Your task to perform on an android device: Go to Yahoo.com Image 0: 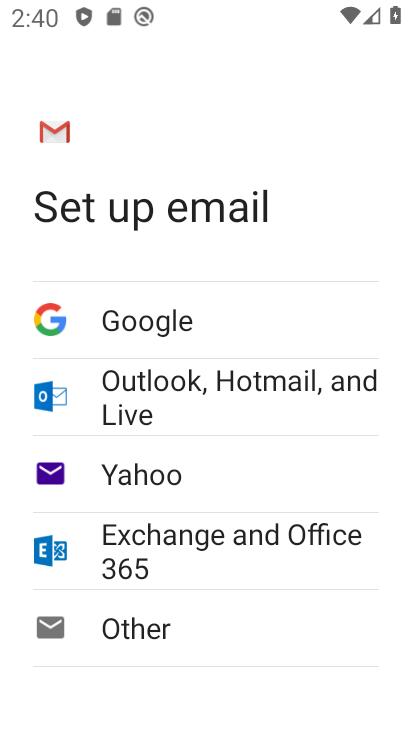
Step 0: press home button
Your task to perform on an android device: Go to Yahoo.com Image 1: 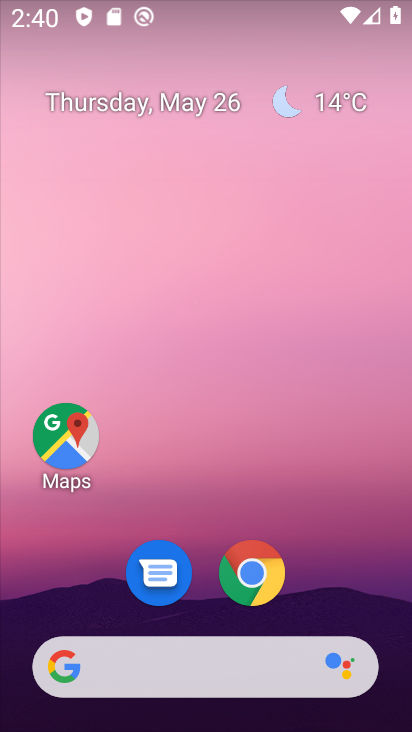
Step 1: drag from (325, 552) to (211, 77)
Your task to perform on an android device: Go to Yahoo.com Image 2: 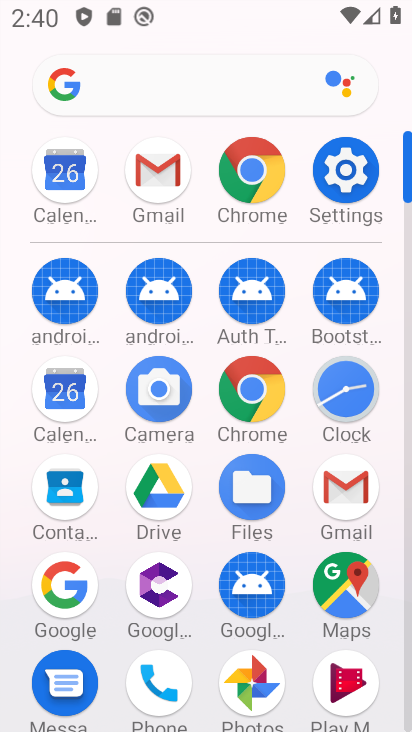
Step 2: click (249, 167)
Your task to perform on an android device: Go to Yahoo.com Image 3: 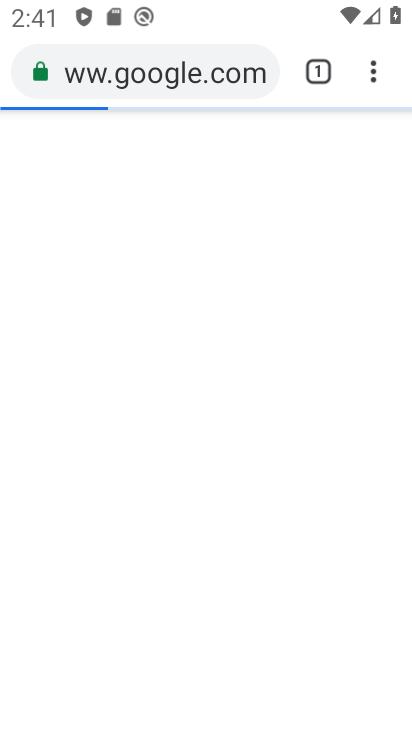
Step 3: click (193, 64)
Your task to perform on an android device: Go to Yahoo.com Image 4: 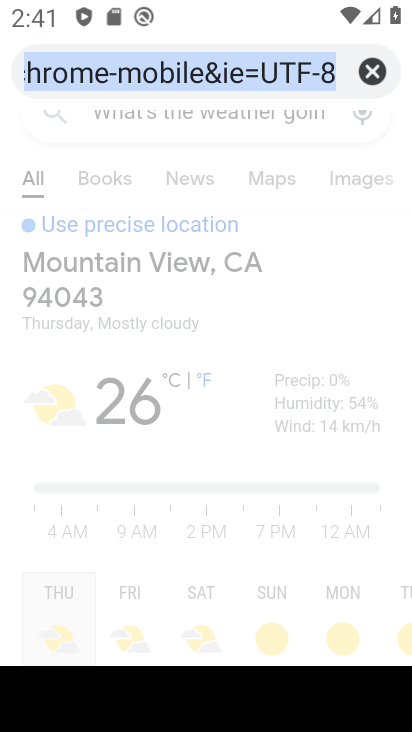
Step 4: click (365, 71)
Your task to perform on an android device: Go to Yahoo.com Image 5: 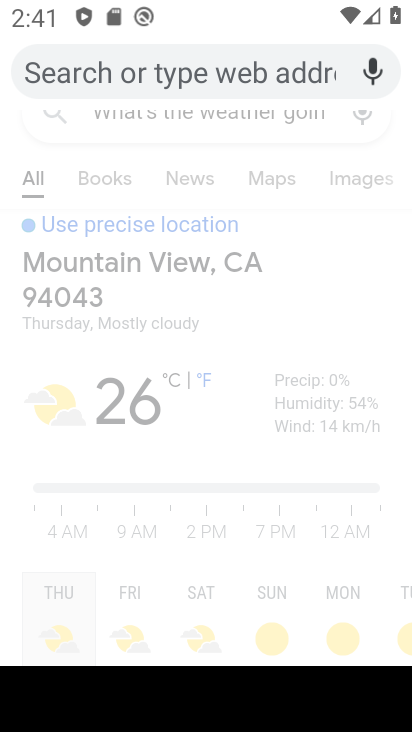
Step 5: type "Yahoo.com"
Your task to perform on an android device: Go to Yahoo.com Image 6: 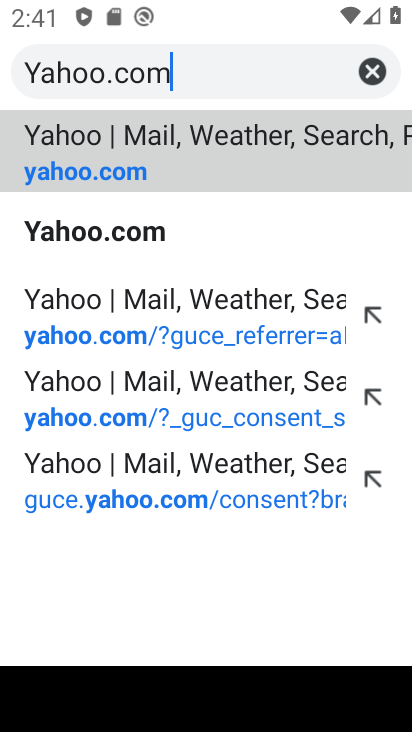
Step 6: type ""
Your task to perform on an android device: Go to Yahoo.com Image 7: 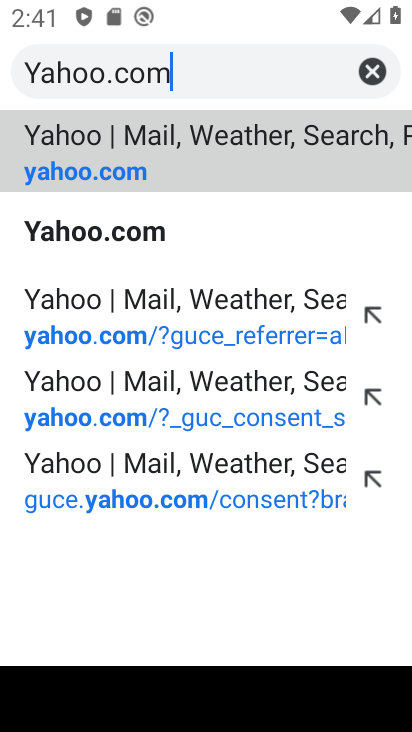
Step 7: click (211, 153)
Your task to perform on an android device: Go to Yahoo.com Image 8: 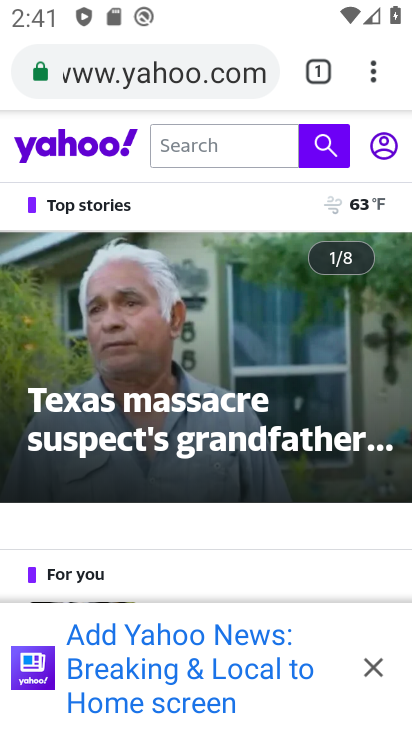
Step 8: task complete